Your task to perform on an android device: clear all cookies in the chrome app Image 0: 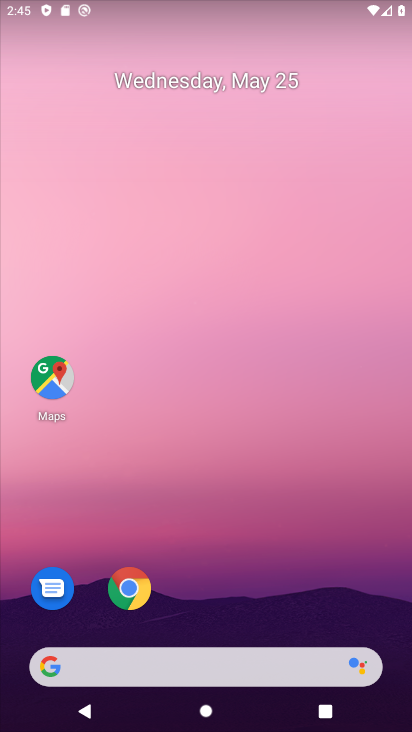
Step 0: click (355, 606)
Your task to perform on an android device: clear all cookies in the chrome app Image 1: 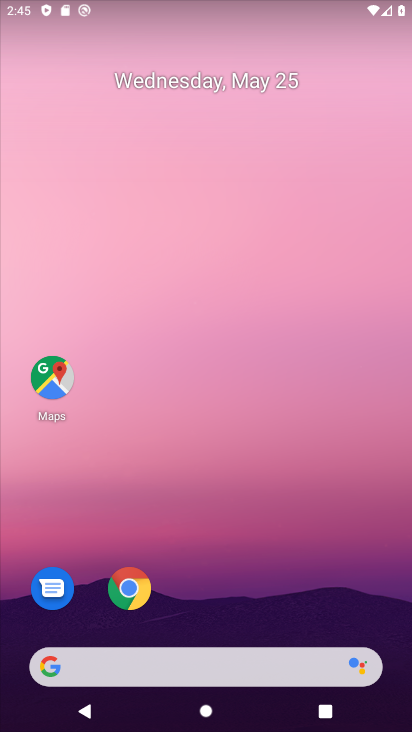
Step 1: click (111, 599)
Your task to perform on an android device: clear all cookies in the chrome app Image 2: 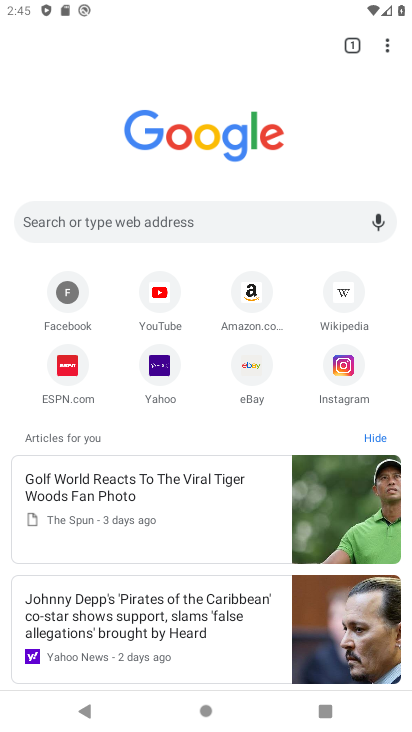
Step 2: drag from (388, 45) to (206, 382)
Your task to perform on an android device: clear all cookies in the chrome app Image 3: 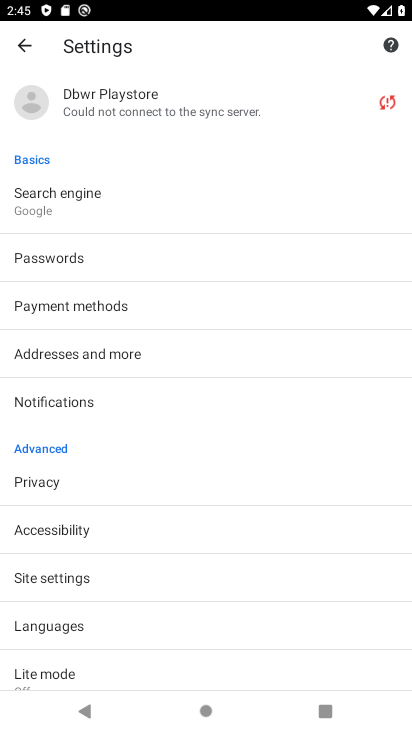
Step 3: click (95, 480)
Your task to perform on an android device: clear all cookies in the chrome app Image 4: 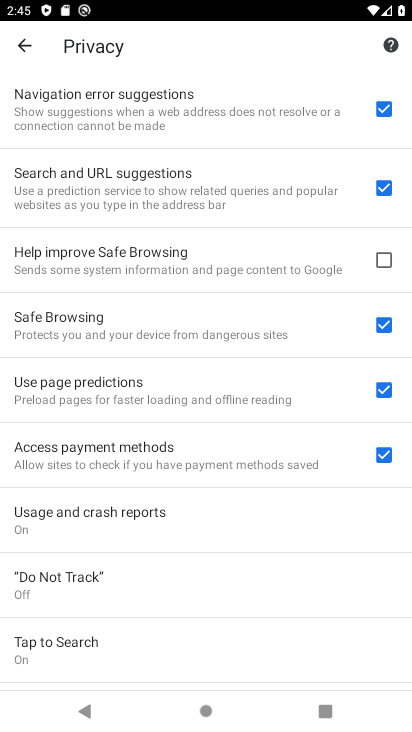
Step 4: drag from (137, 488) to (169, 321)
Your task to perform on an android device: clear all cookies in the chrome app Image 5: 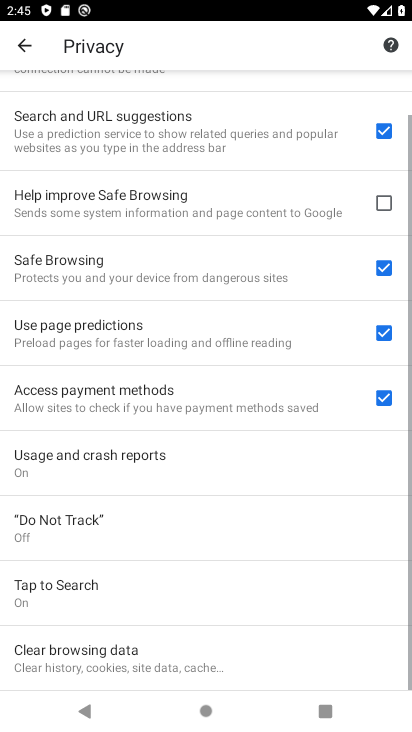
Step 5: click (116, 653)
Your task to perform on an android device: clear all cookies in the chrome app Image 6: 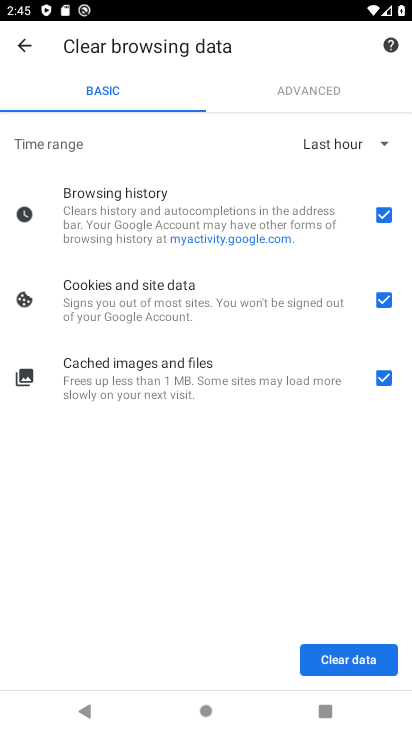
Step 6: click (356, 648)
Your task to perform on an android device: clear all cookies in the chrome app Image 7: 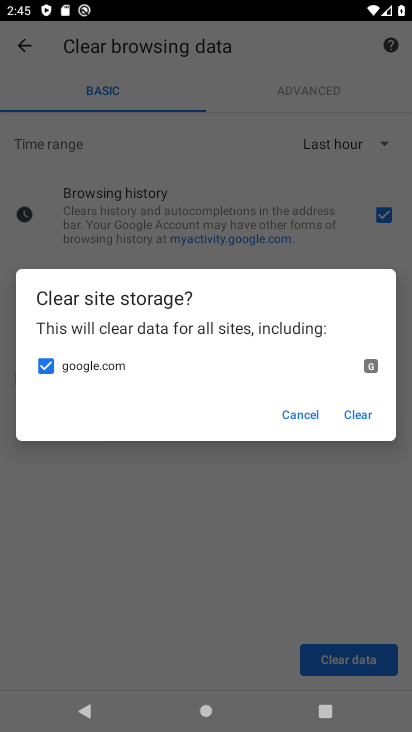
Step 7: click (354, 402)
Your task to perform on an android device: clear all cookies in the chrome app Image 8: 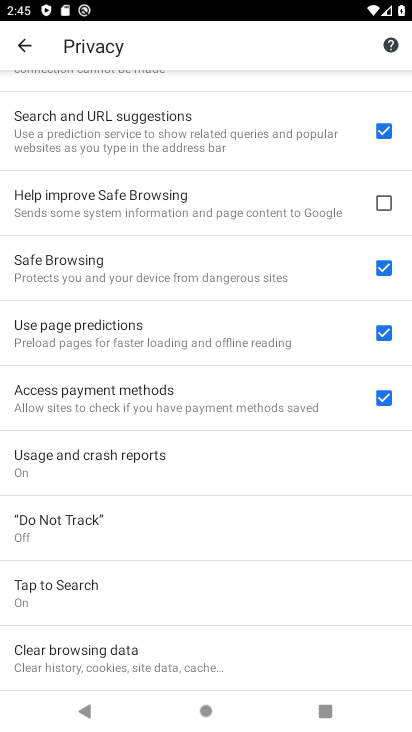
Step 8: task complete